Your task to perform on an android device: change keyboard looks Image 0: 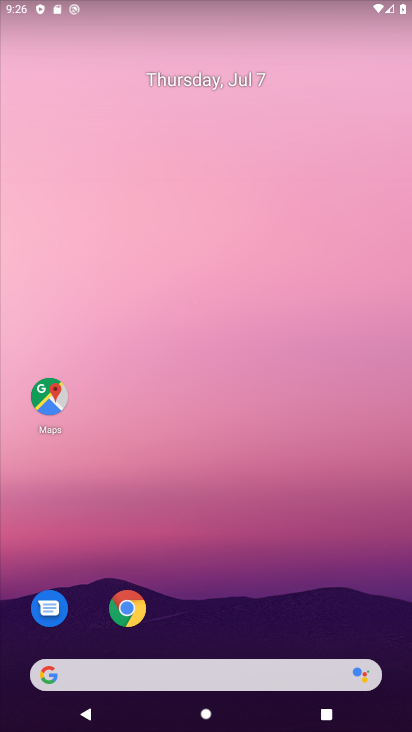
Step 0: drag from (195, 622) to (184, 48)
Your task to perform on an android device: change keyboard looks Image 1: 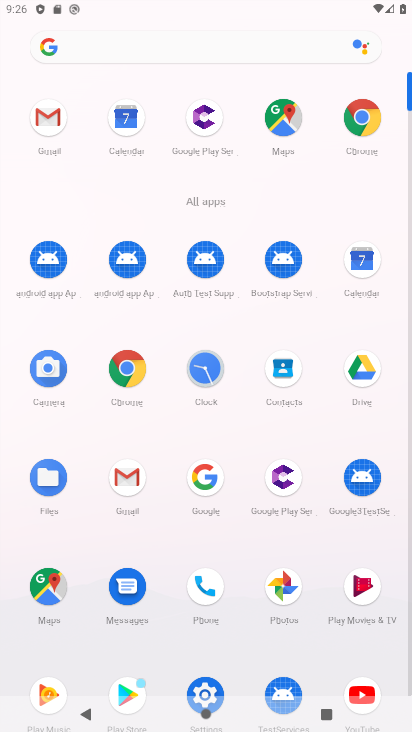
Step 1: click (207, 676)
Your task to perform on an android device: change keyboard looks Image 2: 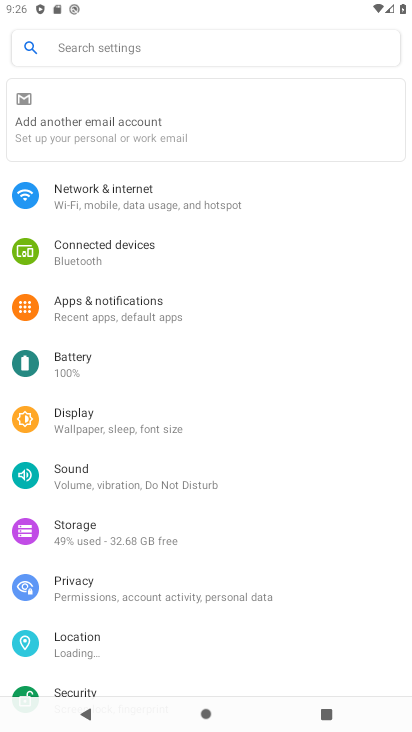
Step 2: drag from (209, 654) to (157, 210)
Your task to perform on an android device: change keyboard looks Image 3: 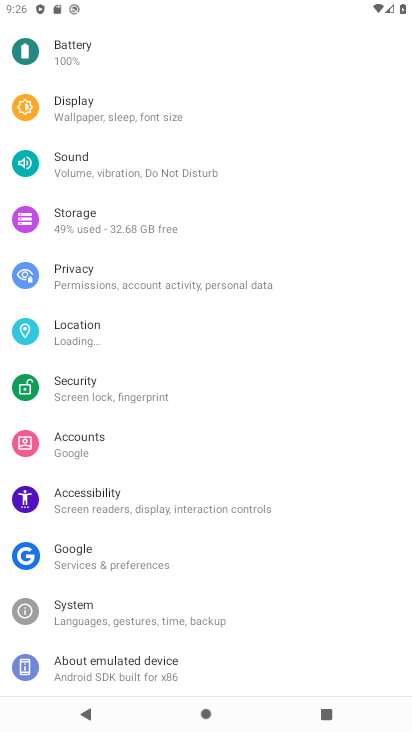
Step 3: click (116, 606)
Your task to perform on an android device: change keyboard looks Image 4: 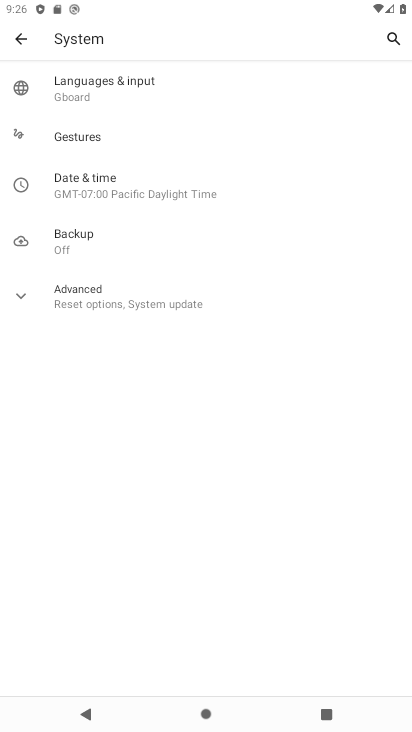
Step 4: click (48, 76)
Your task to perform on an android device: change keyboard looks Image 5: 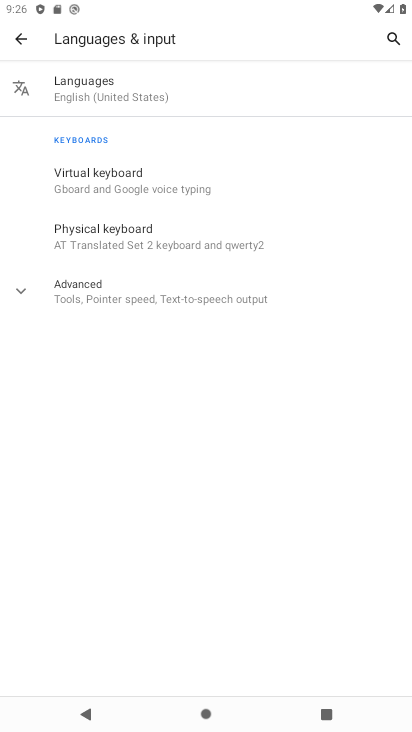
Step 5: click (121, 166)
Your task to perform on an android device: change keyboard looks Image 6: 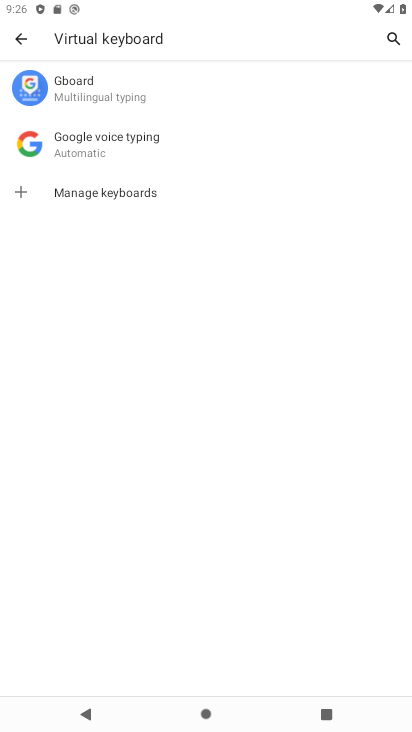
Step 6: click (70, 98)
Your task to perform on an android device: change keyboard looks Image 7: 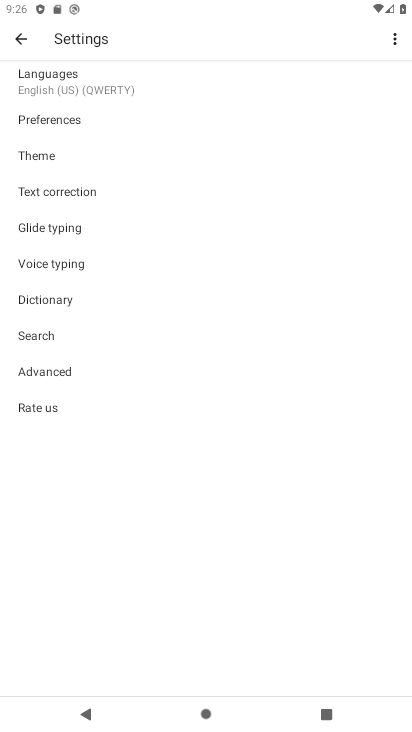
Step 7: click (44, 155)
Your task to perform on an android device: change keyboard looks Image 8: 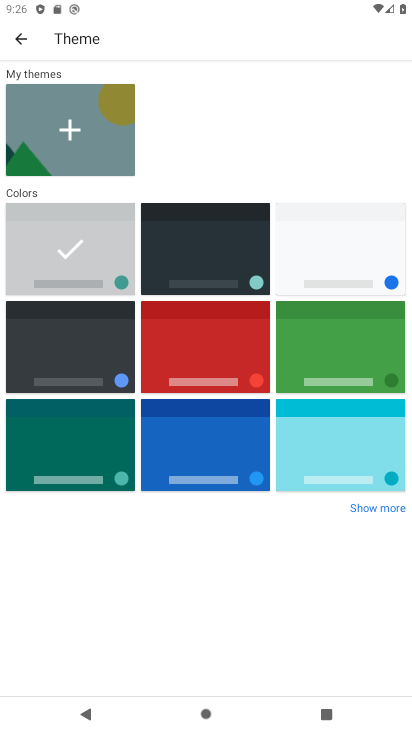
Step 8: click (193, 271)
Your task to perform on an android device: change keyboard looks Image 9: 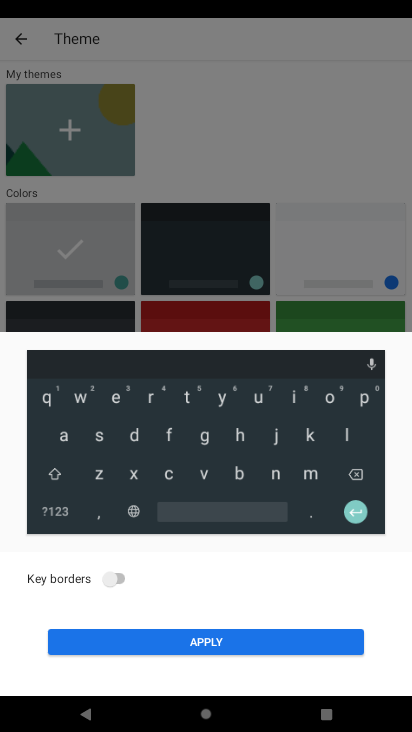
Step 9: click (216, 640)
Your task to perform on an android device: change keyboard looks Image 10: 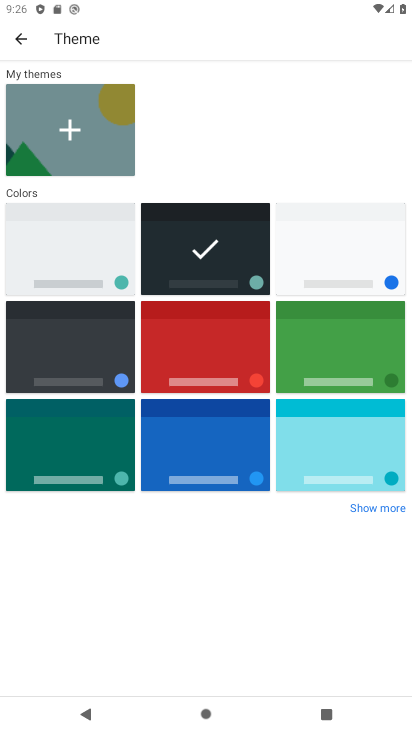
Step 10: task complete